Your task to perform on an android device: set an alarm Image 0: 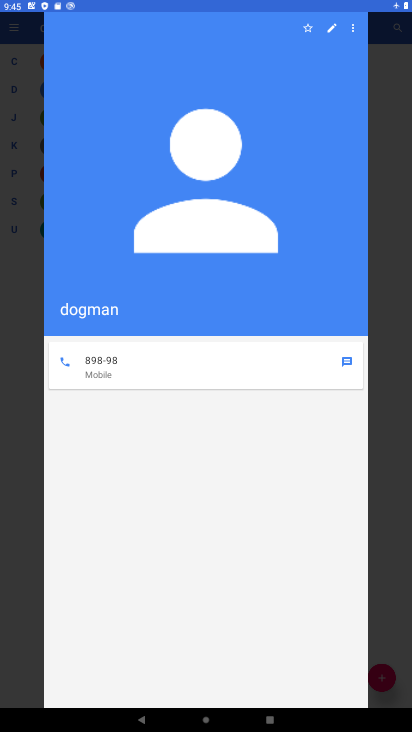
Step 0: press home button
Your task to perform on an android device: set an alarm Image 1: 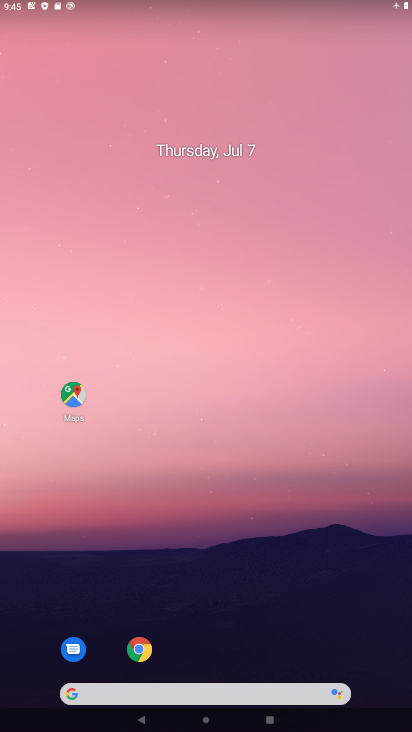
Step 1: drag from (232, 730) to (223, 547)
Your task to perform on an android device: set an alarm Image 2: 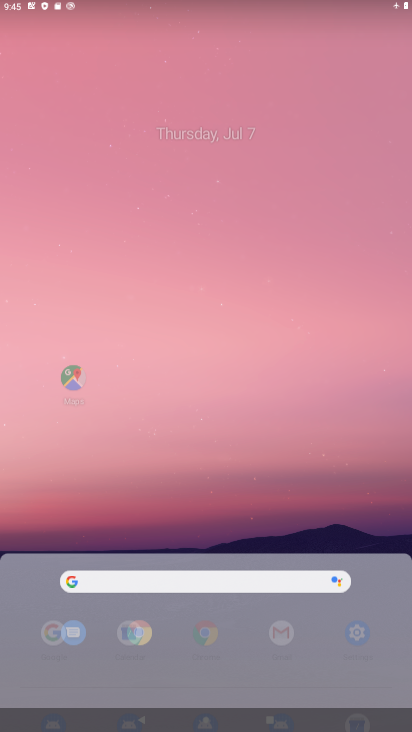
Step 2: click (180, 233)
Your task to perform on an android device: set an alarm Image 3: 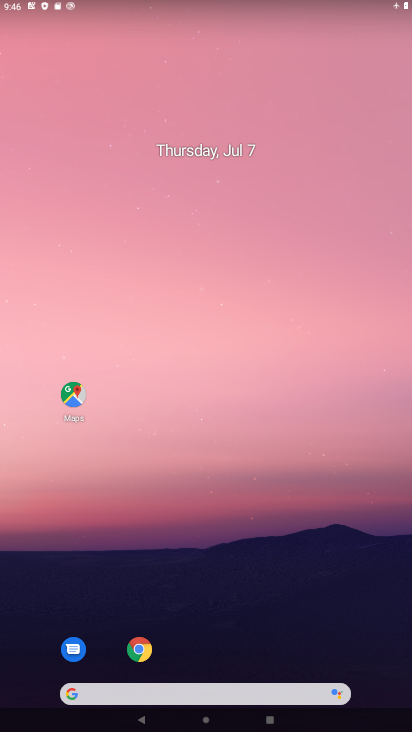
Step 3: drag from (240, 723) to (240, 220)
Your task to perform on an android device: set an alarm Image 4: 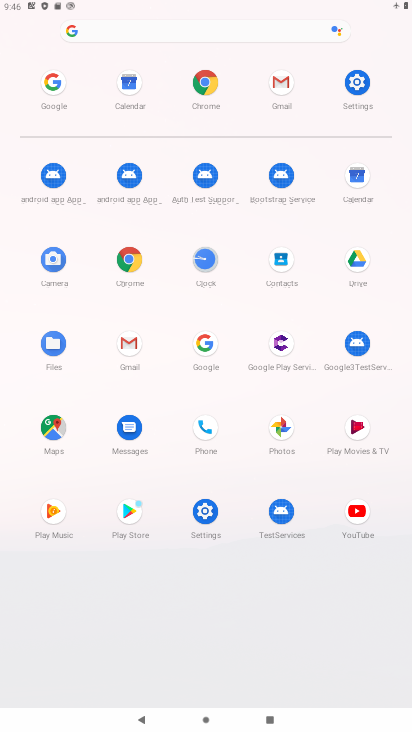
Step 4: click (200, 263)
Your task to perform on an android device: set an alarm Image 5: 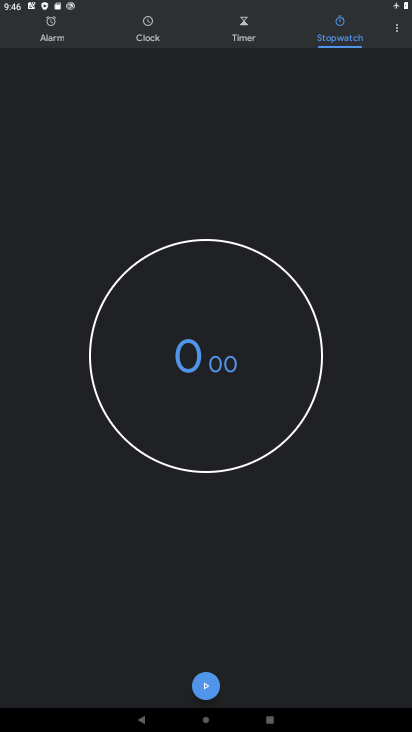
Step 5: click (50, 34)
Your task to perform on an android device: set an alarm Image 6: 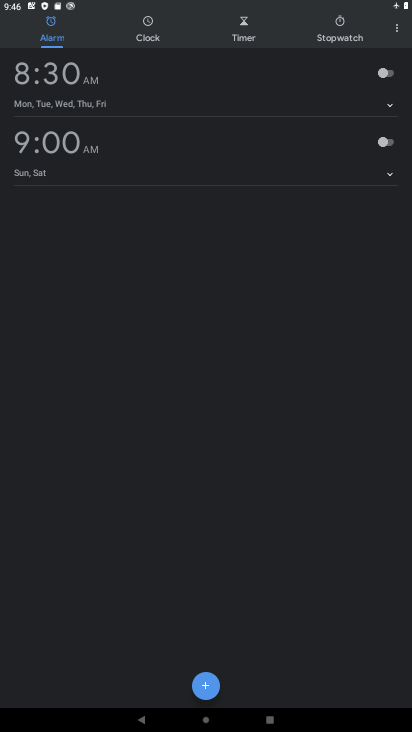
Step 6: click (206, 688)
Your task to perform on an android device: set an alarm Image 7: 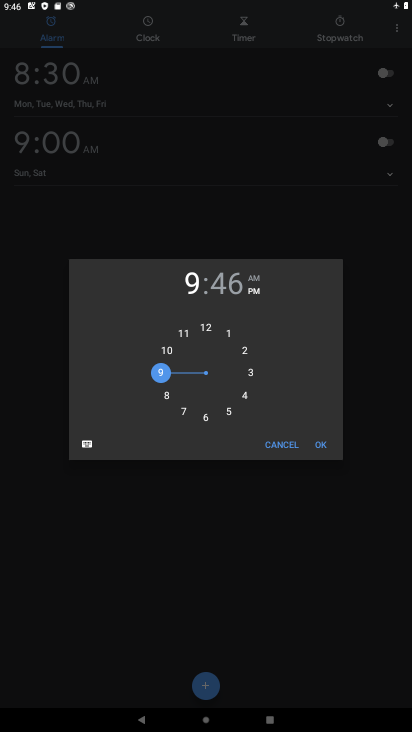
Step 7: click (252, 372)
Your task to perform on an android device: set an alarm Image 8: 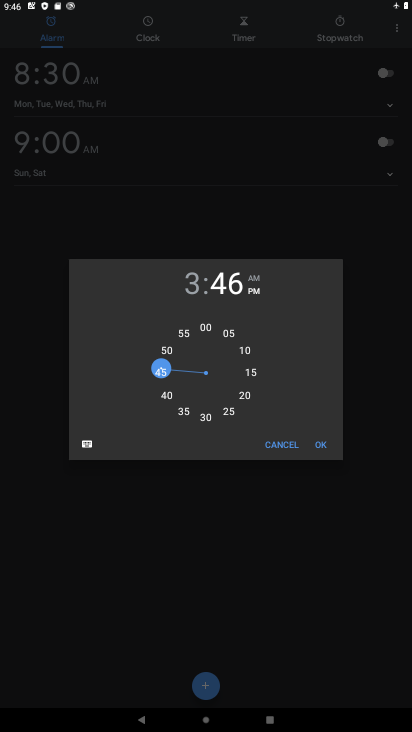
Step 8: click (237, 413)
Your task to perform on an android device: set an alarm Image 9: 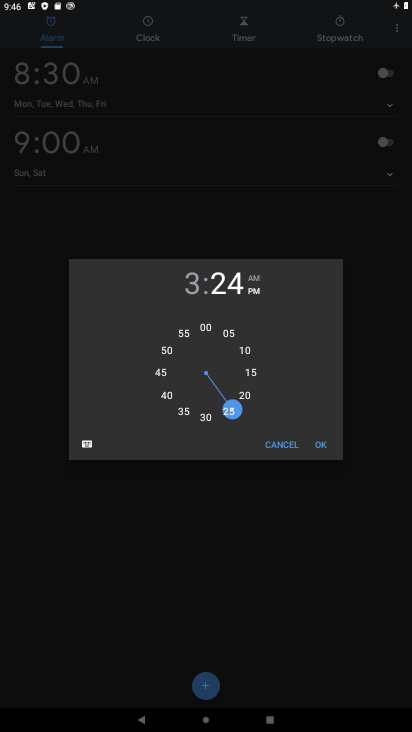
Step 9: click (326, 444)
Your task to perform on an android device: set an alarm Image 10: 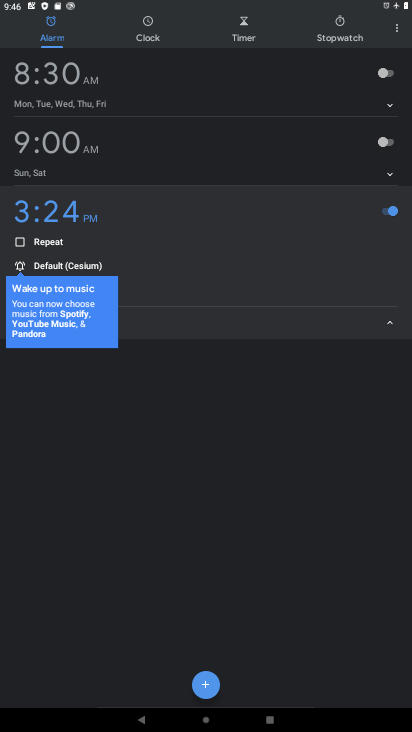
Step 10: task complete